Your task to perform on an android device: add a contact in the contacts app Image 0: 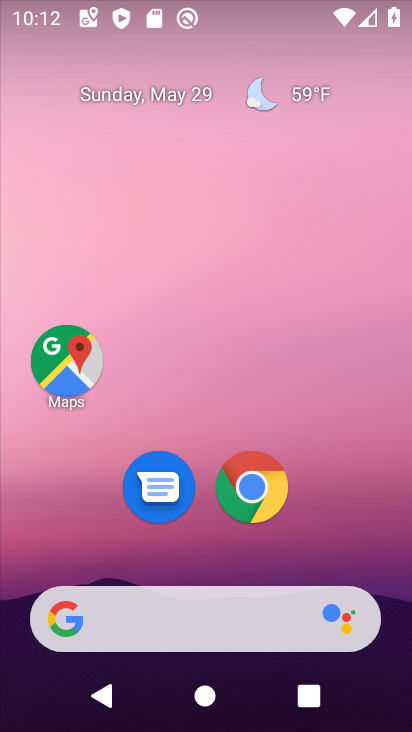
Step 0: drag from (397, 660) to (339, 162)
Your task to perform on an android device: add a contact in the contacts app Image 1: 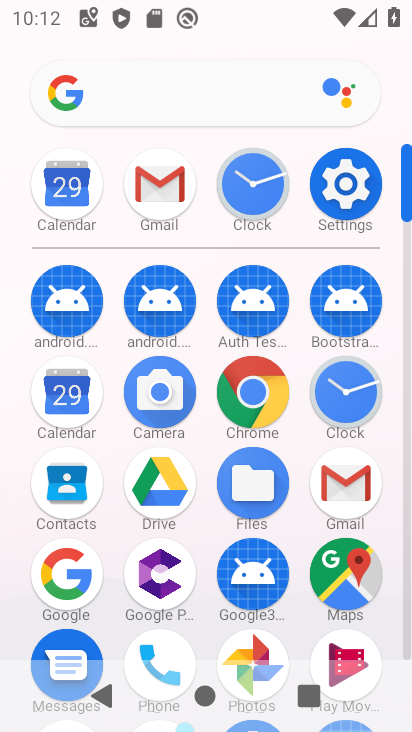
Step 1: click (57, 498)
Your task to perform on an android device: add a contact in the contacts app Image 2: 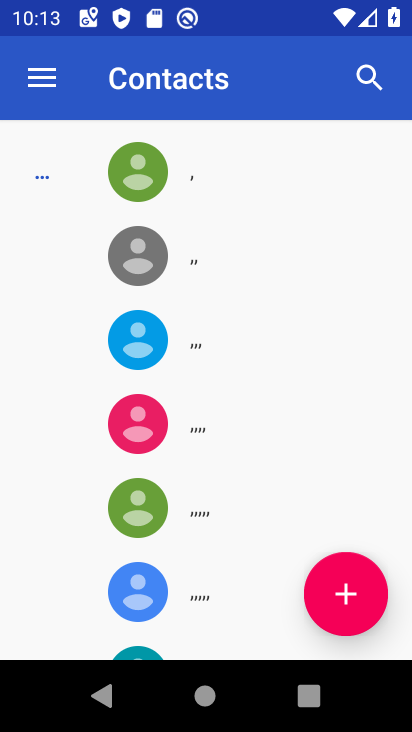
Step 2: click (354, 585)
Your task to perform on an android device: add a contact in the contacts app Image 3: 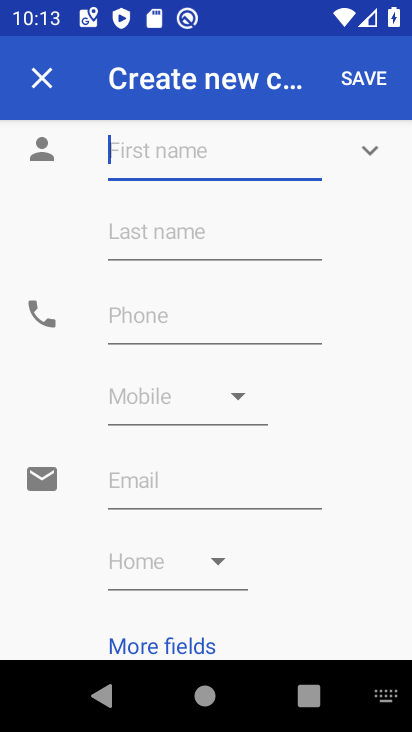
Step 3: type "ghhgfgf"
Your task to perform on an android device: add a contact in the contacts app Image 4: 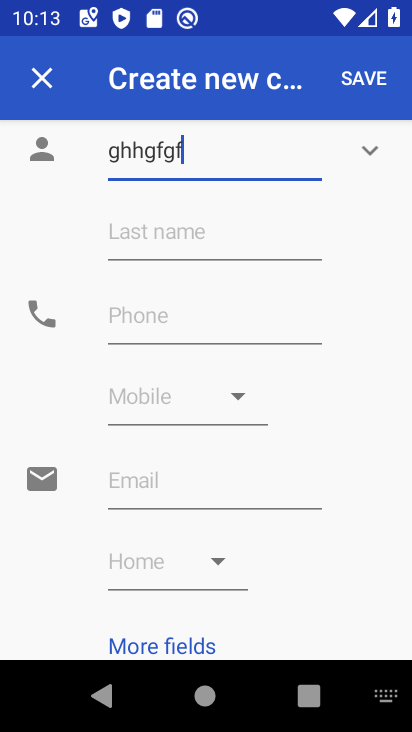
Step 4: click (222, 239)
Your task to perform on an android device: add a contact in the contacts app Image 5: 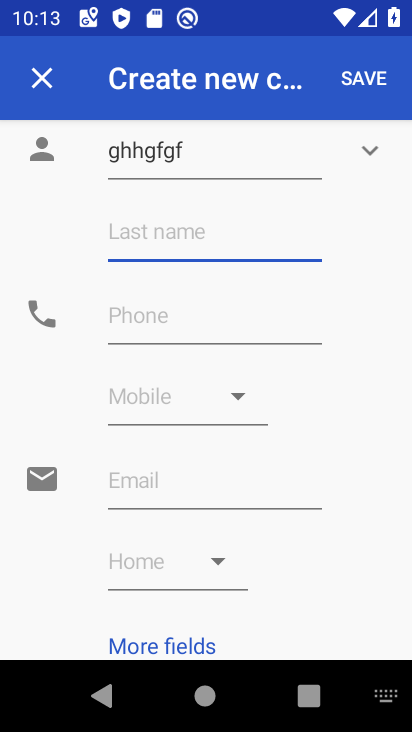
Step 5: type "hggjgj"
Your task to perform on an android device: add a contact in the contacts app Image 6: 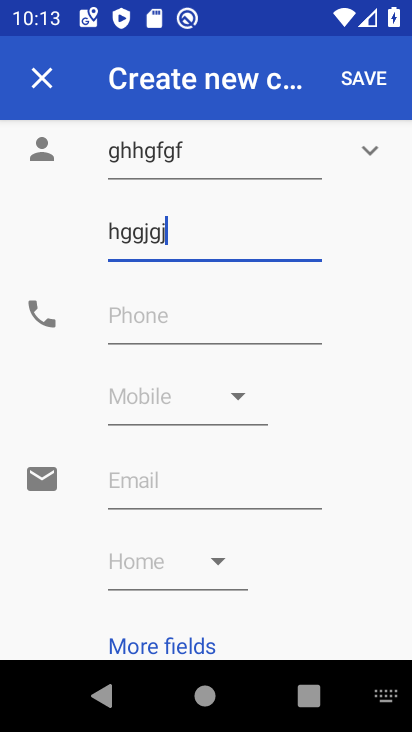
Step 6: click (142, 330)
Your task to perform on an android device: add a contact in the contacts app Image 7: 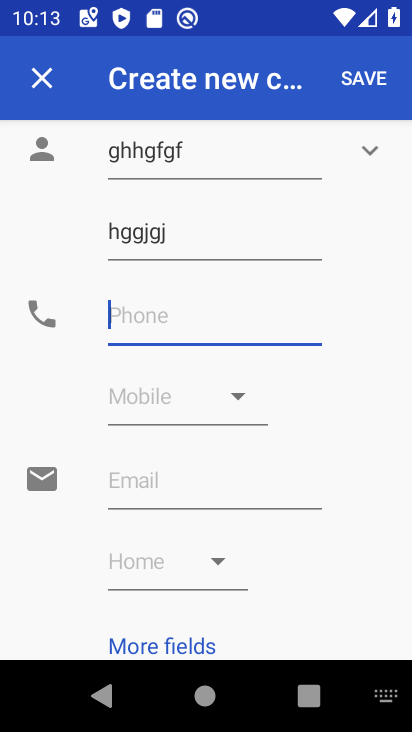
Step 7: type "4647474884"
Your task to perform on an android device: add a contact in the contacts app Image 8: 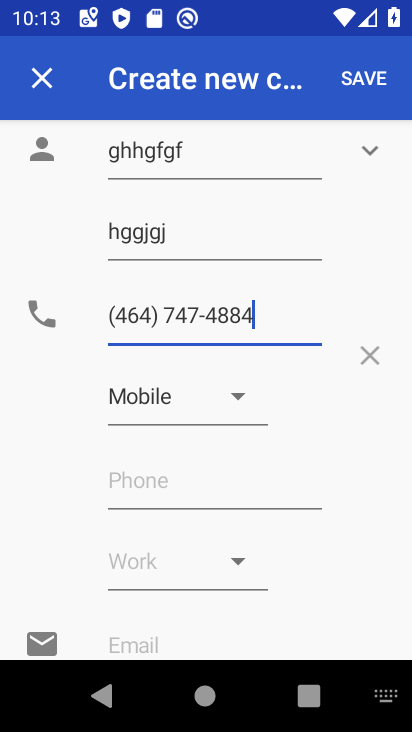
Step 8: click (364, 87)
Your task to perform on an android device: add a contact in the contacts app Image 9: 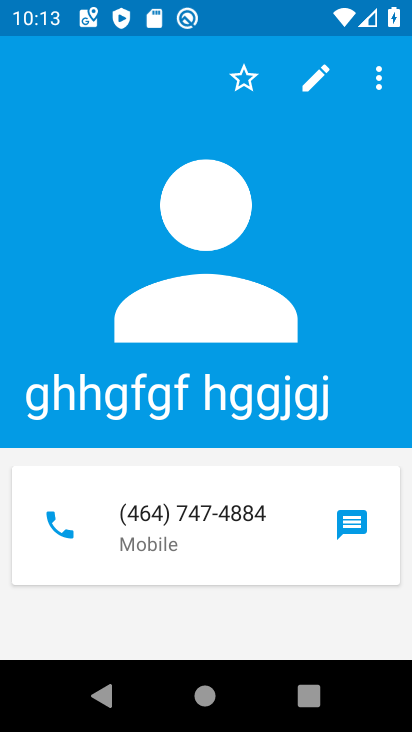
Step 9: task complete